Your task to perform on an android device: empty trash in the gmail app Image 0: 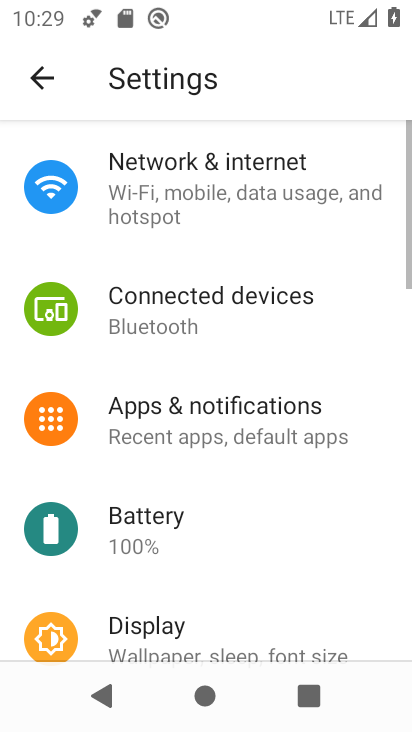
Step 0: press home button
Your task to perform on an android device: empty trash in the gmail app Image 1: 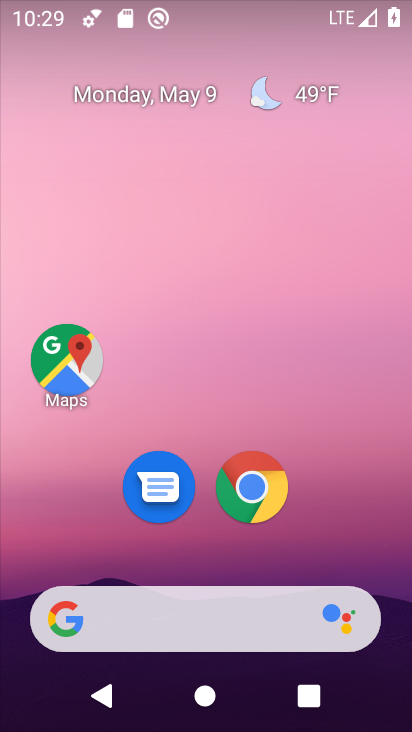
Step 1: drag from (321, 498) to (131, 149)
Your task to perform on an android device: empty trash in the gmail app Image 2: 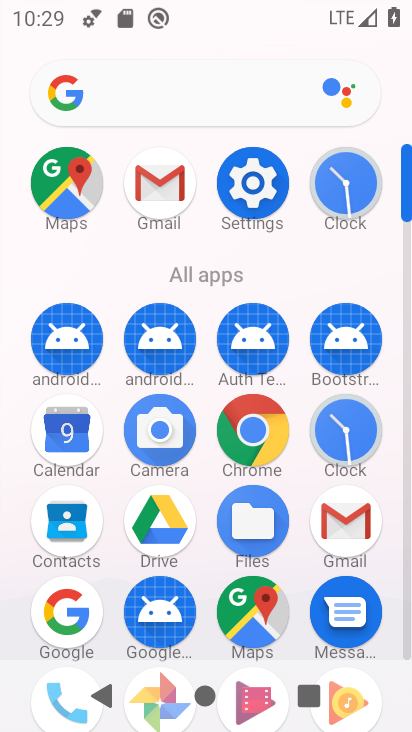
Step 2: click (163, 190)
Your task to perform on an android device: empty trash in the gmail app Image 3: 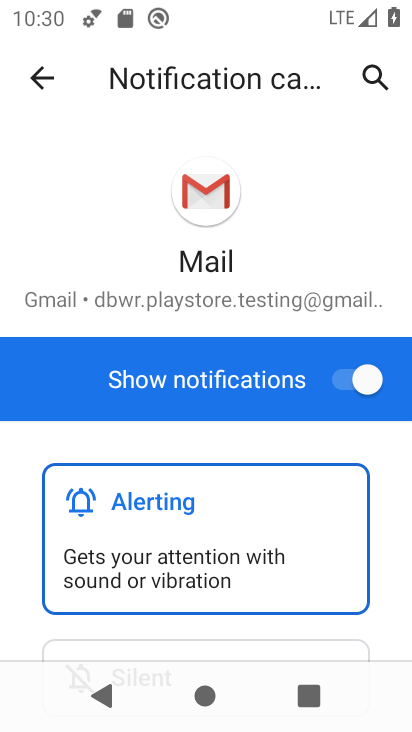
Step 3: press back button
Your task to perform on an android device: empty trash in the gmail app Image 4: 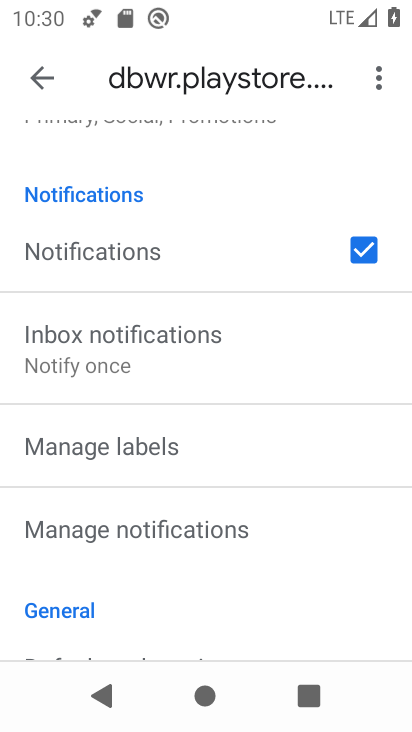
Step 4: press back button
Your task to perform on an android device: empty trash in the gmail app Image 5: 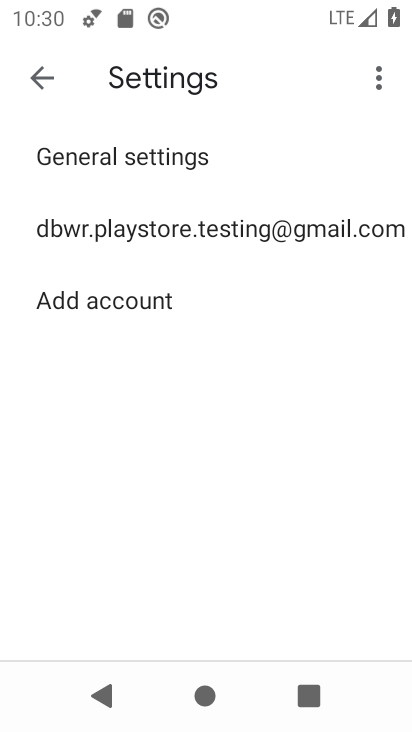
Step 5: press back button
Your task to perform on an android device: empty trash in the gmail app Image 6: 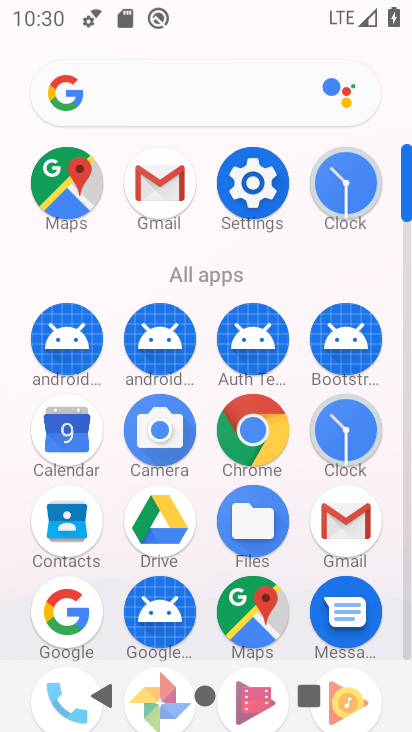
Step 6: click (153, 177)
Your task to perform on an android device: empty trash in the gmail app Image 7: 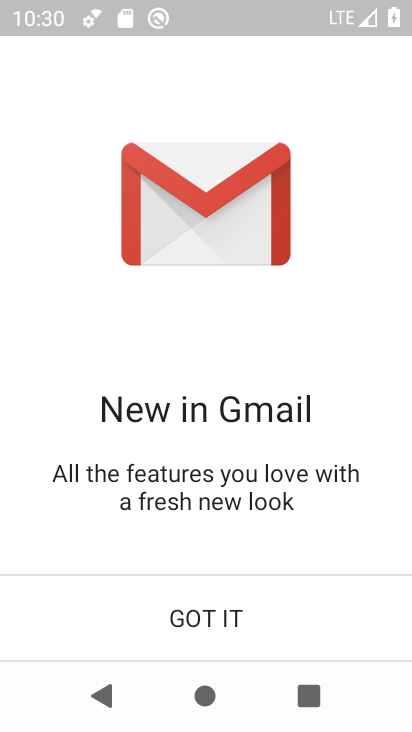
Step 7: click (195, 621)
Your task to perform on an android device: empty trash in the gmail app Image 8: 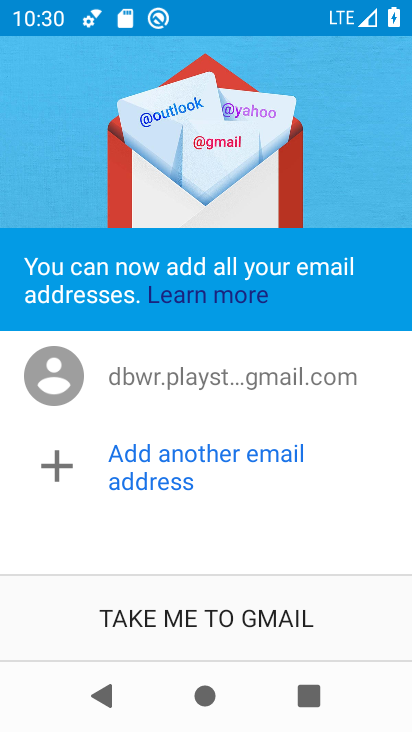
Step 8: click (213, 617)
Your task to perform on an android device: empty trash in the gmail app Image 9: 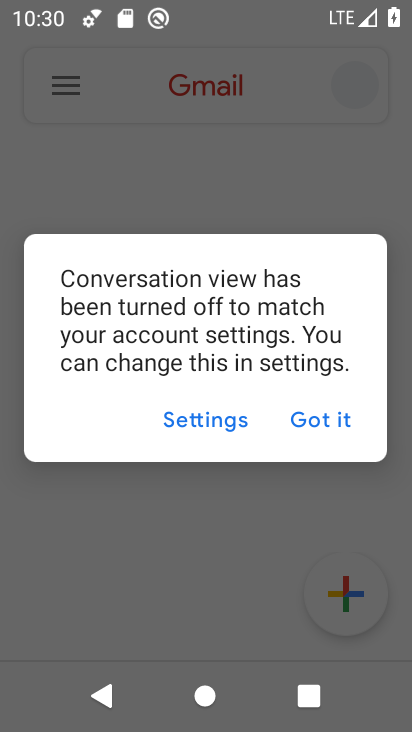
Step 9: click (311, 415)
Your task to perform on an android device: empty trash in the gmail app Image 10: 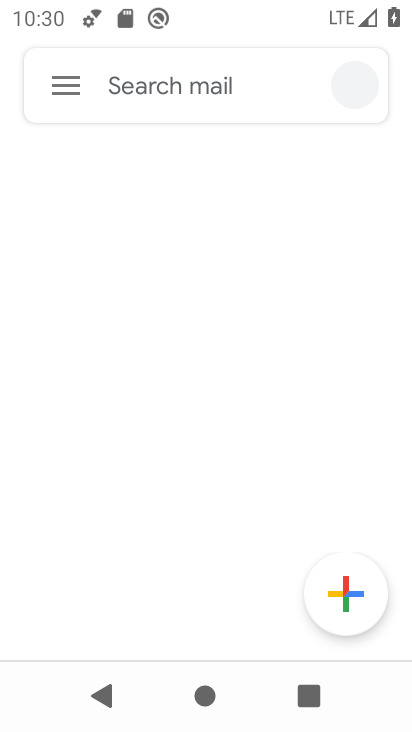
Step 10: click (65, 92)
Your task to perform on an android device: empty trash in the gmail app Image 11: 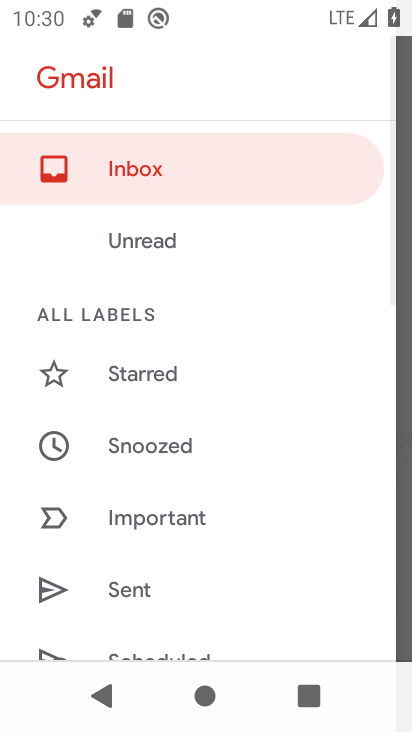
Step 11: drag from (125, 653) to (110, 249)
Your task to perform on an android device: empty trash in the gmail app Image 12: 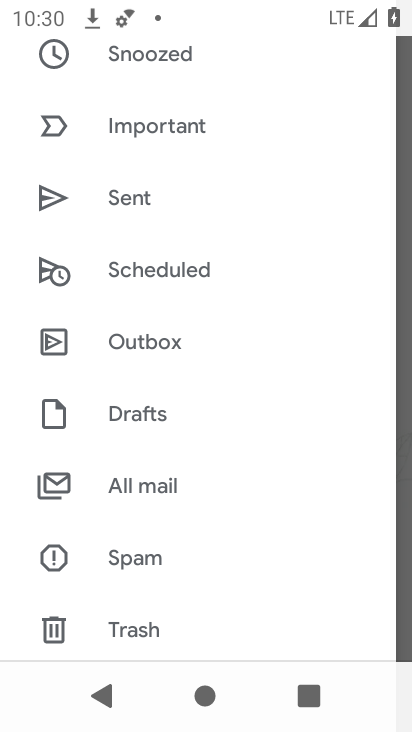
Step 12: drag from (171, 592) to (164, 382)
Your task to perform on an android device: empty trash in the gmail app Image 13: 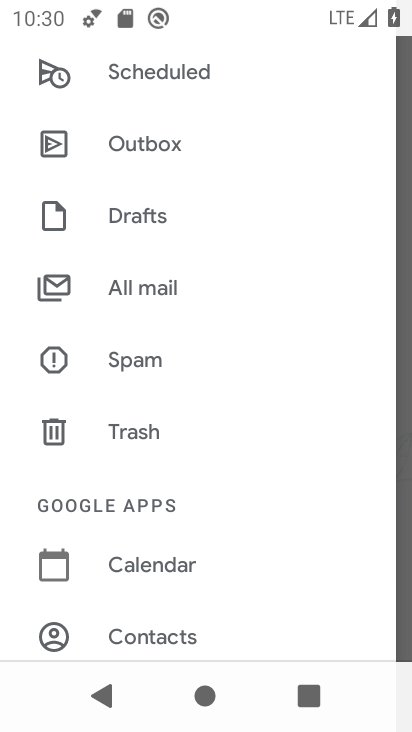
Step 13: click (136, 437)
Your task to perform on an android device: empty trash in the gmail app Image 14: 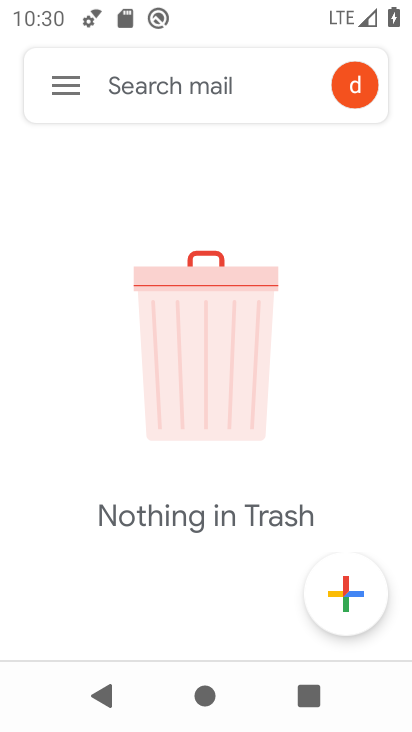
Step 14: task complete